Your task to perform on an android device: turn on location history Image 0: 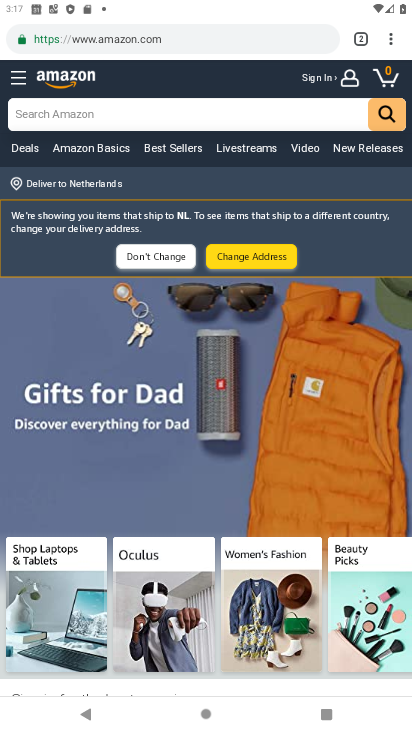
Step 0: press home button
Your task to perform on an android device: turn on location history Image 1: 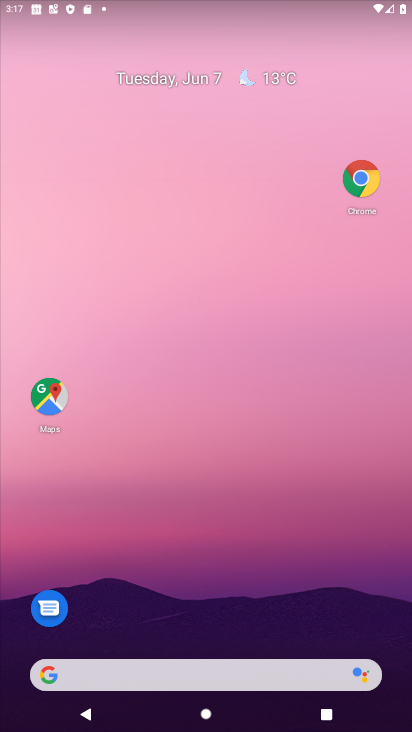
Step 1: drag from (190, 640) to (284, 168)
Your task to perform on an android device: turn on location history Image 2: 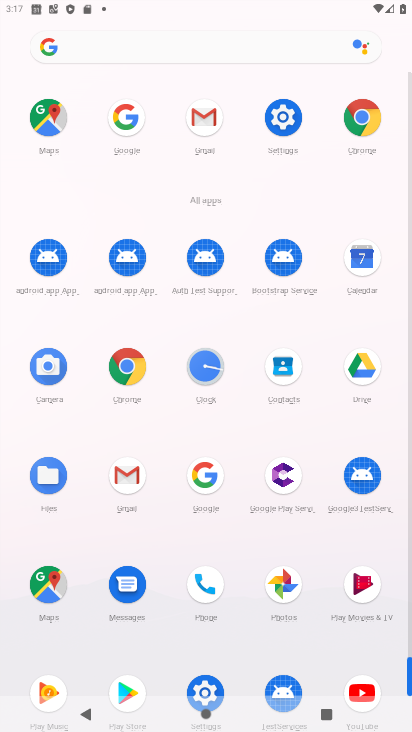
Step 2: drag from (138, 615) to (208, 349)
Your task to perform on an android device: turn on location history Image 3: 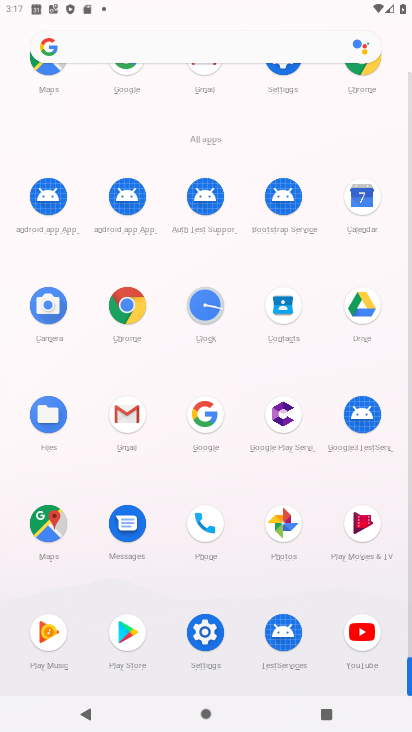
Step 3: click (200, 643)
Your task to perform on an android device: turn on location history Image 4: 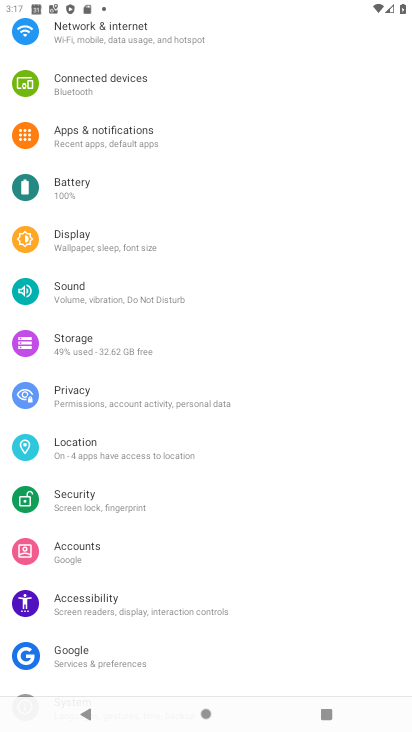
Step 4: click (172, 466)
Your task to perform on an android device: turn on location history Image 5: 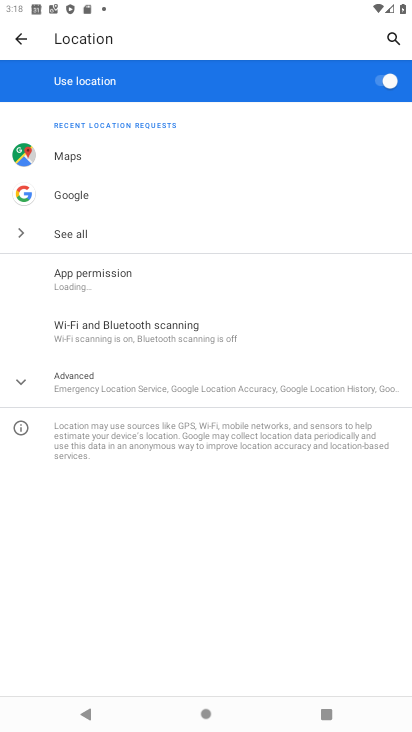
Step 5: click (165, 384)
Your task to perform on an android device: turn on location history Image 6: 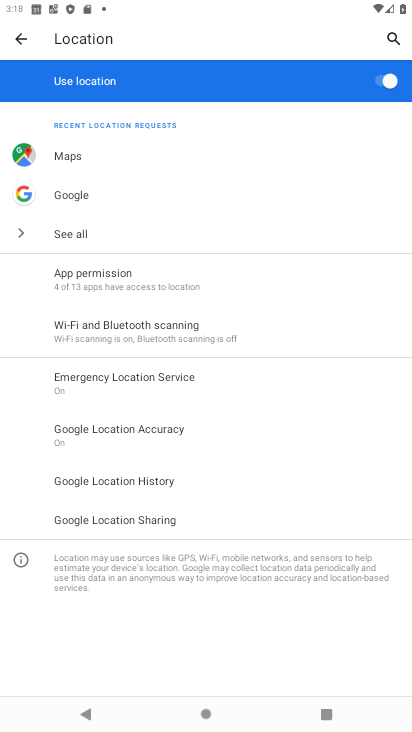
Step 6: click (168, 482)
Your task to perform on an android device: turn on location history Image 7: 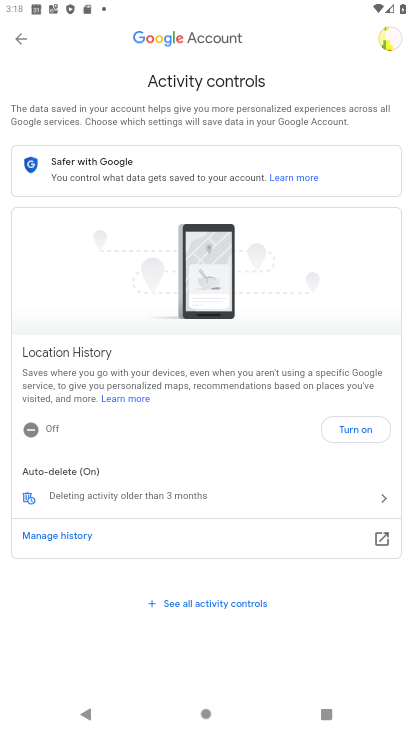
Step 7: click (359, 438)
Your task to perform on an android device: turn on location history Image 8: 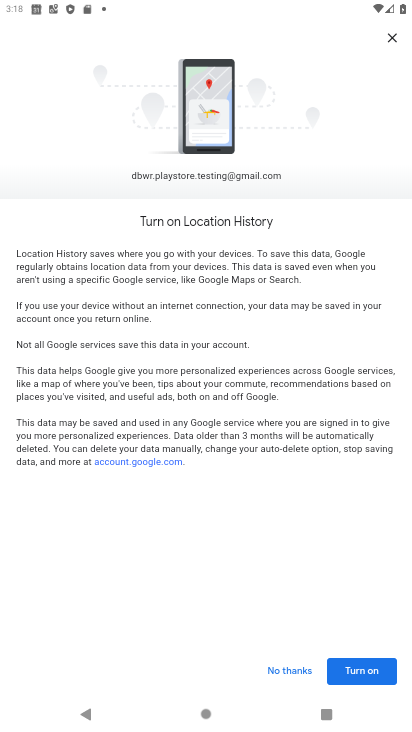
Step 8: click (366, 667)
Your task to perform on an android device: turn on location history Image 9: 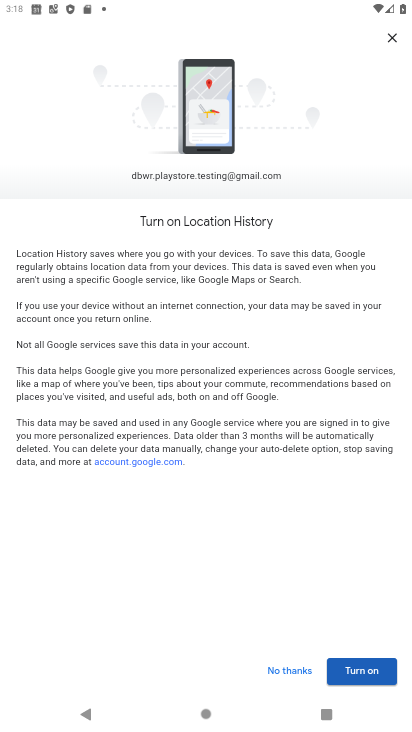
Step 9: click (368, 670)
Your task to perform on an android device: turn on location history Image 10: 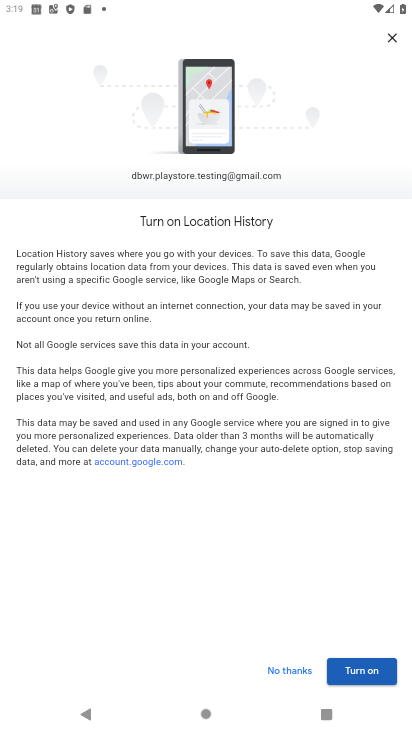
Step 10: click (368, 670)
Your task to perform on an android device: turn on location history Image 11: 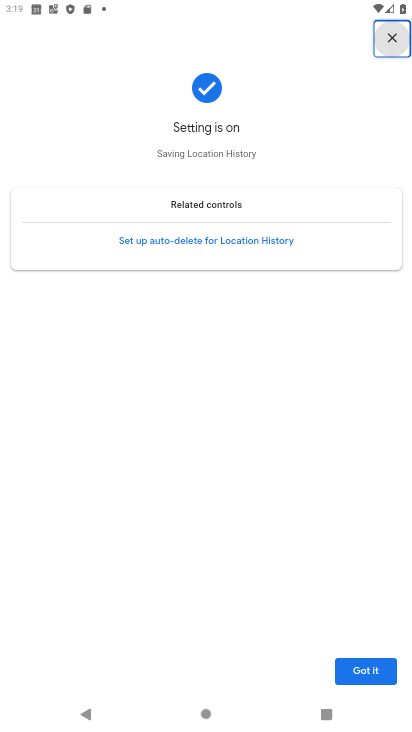
Step 11: click (364, 667)
Your task to perform on an android device: turn on location history Image 12: 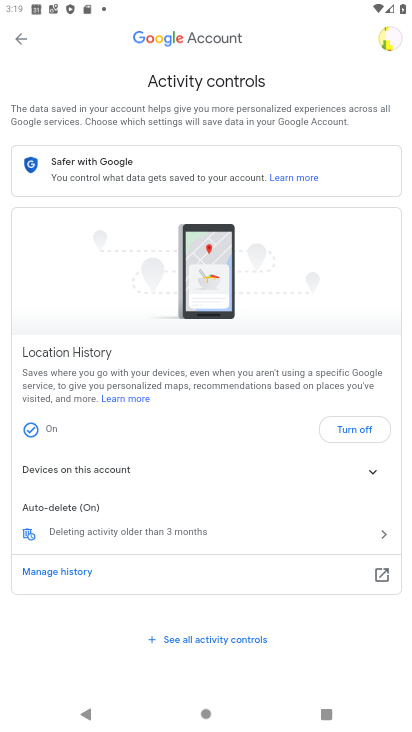
Step 12: task complete